Your task to perform on an android device: Open maps Image 0: 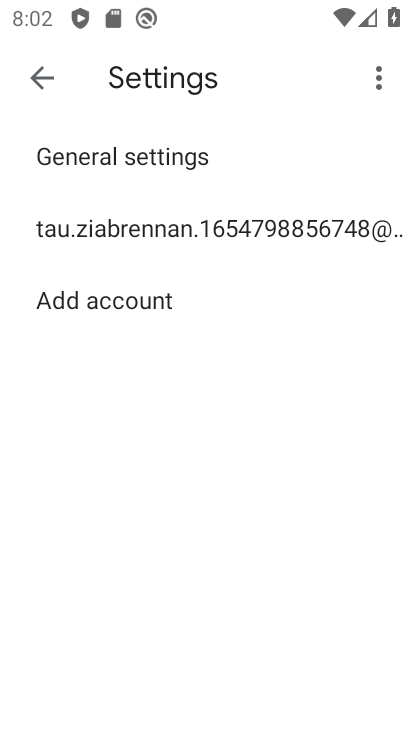
Step 0: press home button
Your task to perform on an android device: Open maps Image 1: 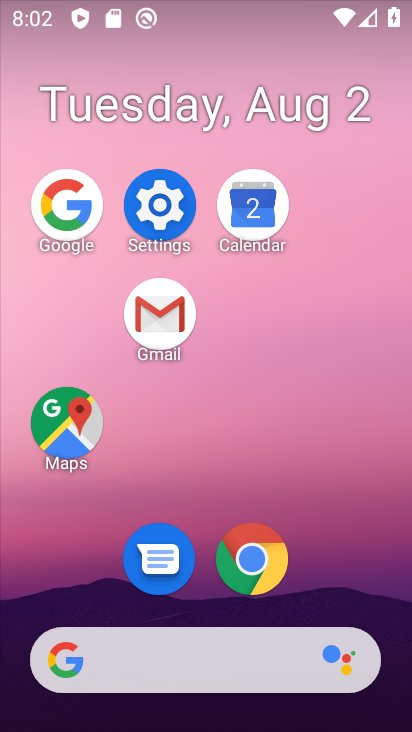
Step 1: click (72, 415)
Your task to perform on an android device: Open maps Image 2: 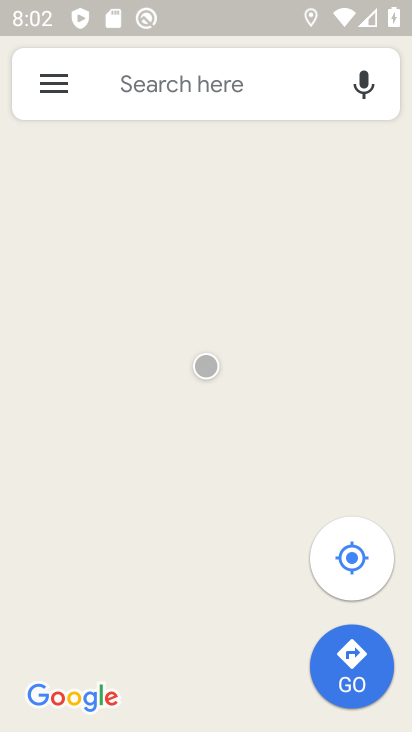
Step 2: task complete